Your task to perform on an android device: toggle notification dots Image 0: 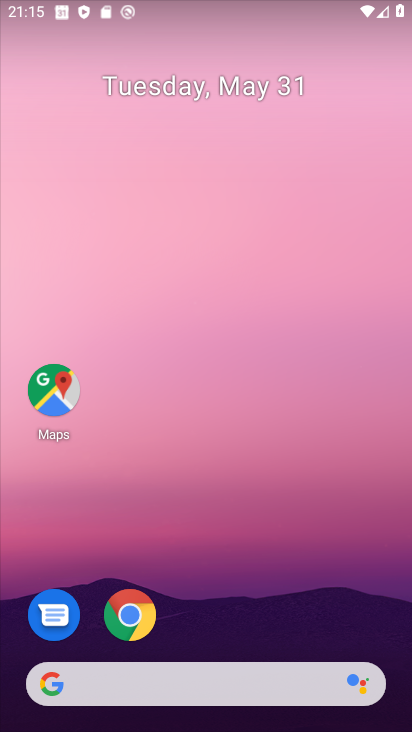
Step 0: drag from (277, 643) to (284, 139)
Your task to perform on an android device: toggle notification dots Image 1: 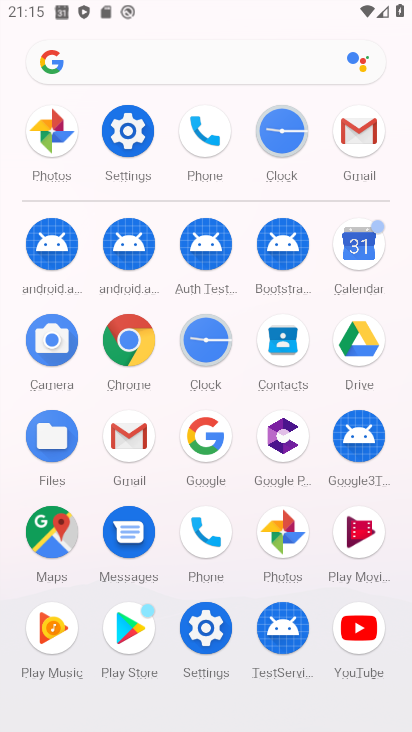
Step 1: click (205, 640)
Your task to perform on an android device: toggle notification dots Image 2: 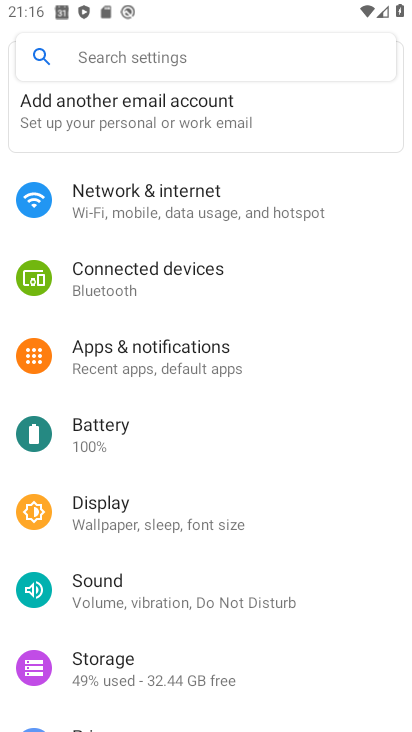
Step 2: click (170, 349)
Your task to perform on an android device: toggle notification dots Image 3: 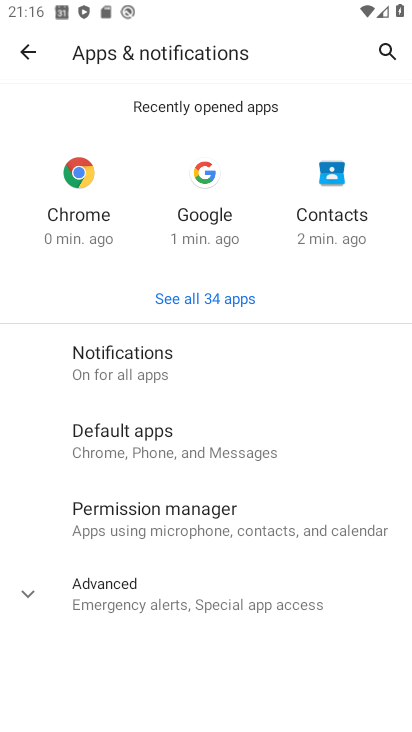
Step 3: click (29, 595)
Your task to perform on an android device: toggle notification dots Image 4: 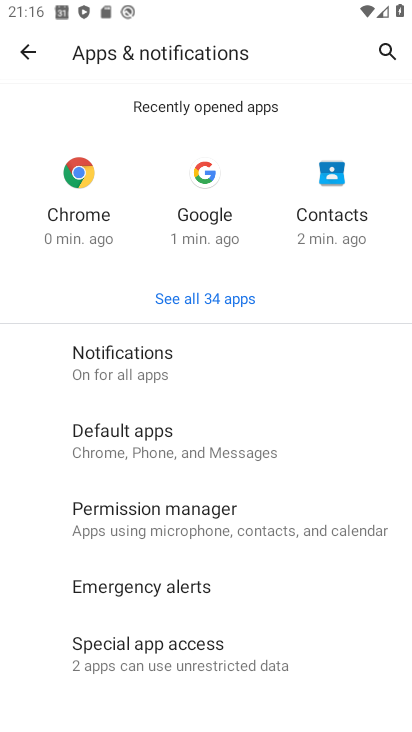
Step 4: drag from (371, 664) to (345, 303)
Your task to perform on an android device: toggle notification dots Image 5: 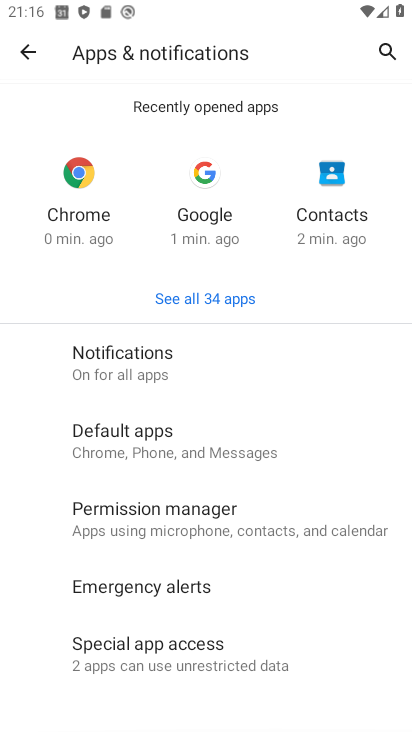
Step 5: drag from (320, 570) to (311, 290)
Your task to perform on an android device: toggle notification dots Image 6: 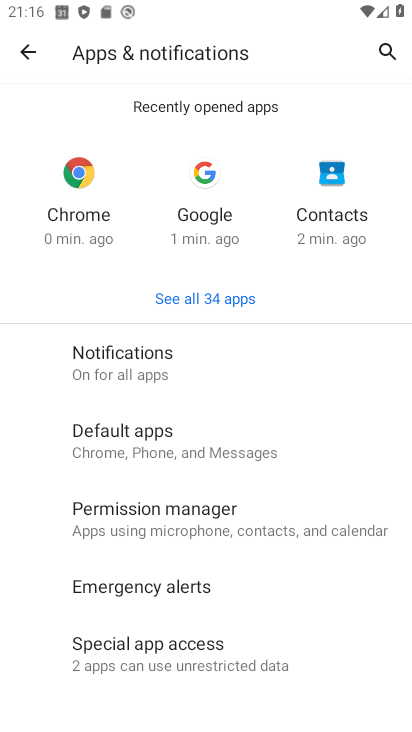
Step 6: drag from (326, 570) to (326, 266)
Your task to perform on an android device: toggle notification dots Image 7: 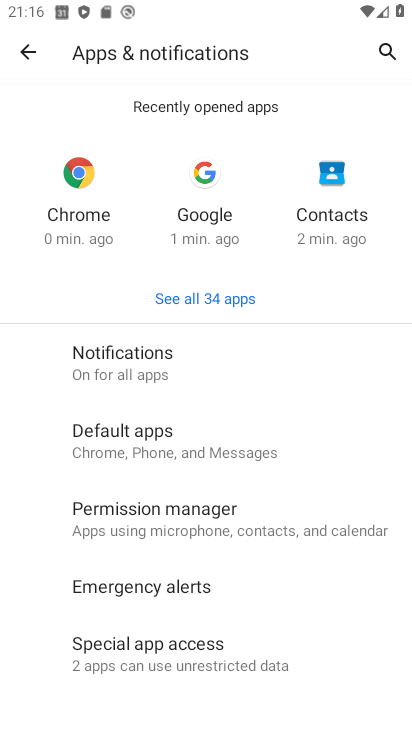
Step 7: click (120, 367)
Your task to perform on an android device: toggle notification dots Image 8: 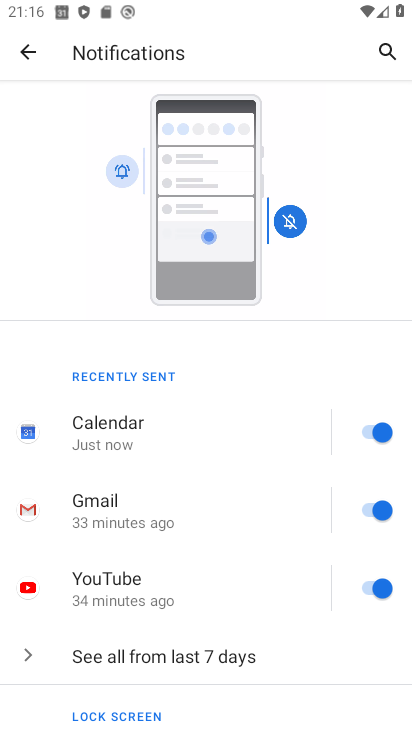
Step 8: drag from (226, 666) to (193, 257)
Your task to perform on an android device: toggle notification dots Image 9: 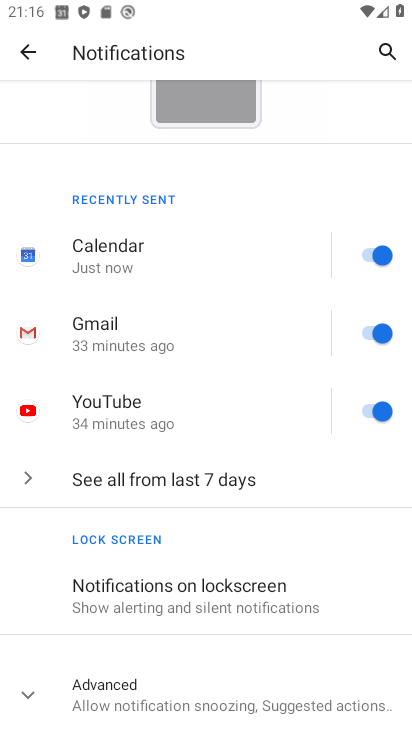
Step 9: click (37, 696)
Your task to perform on an android device: toggle notification dots Image 10: 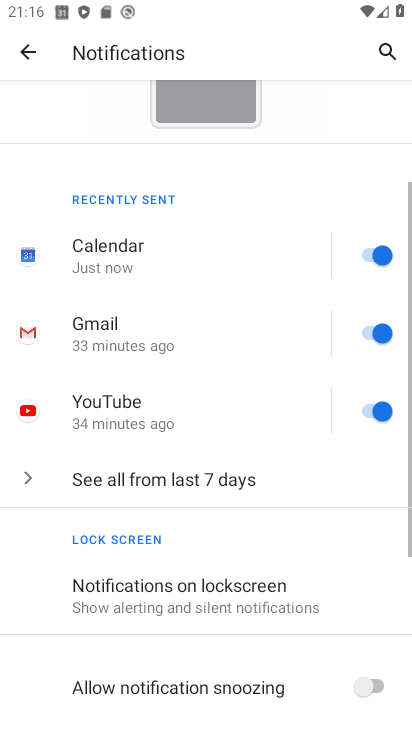
Step 10: drag from (333, 629) to (344, 274)
Your task to perform on an android device: toggle notification dots Image 11: 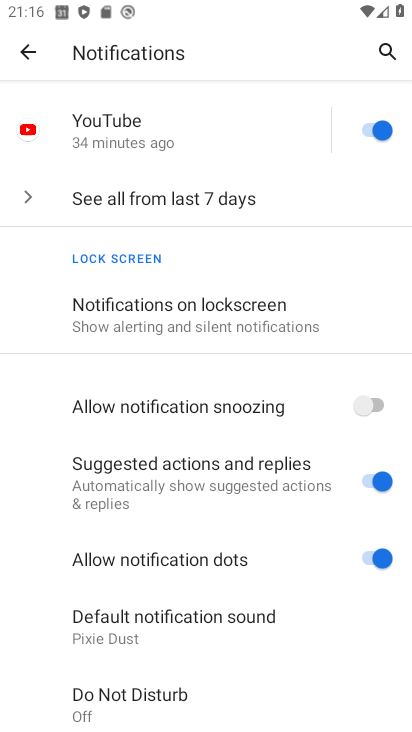
Step 11: click (390, 554)
Your task to perform on an android device: toggle notification dots Image 12: 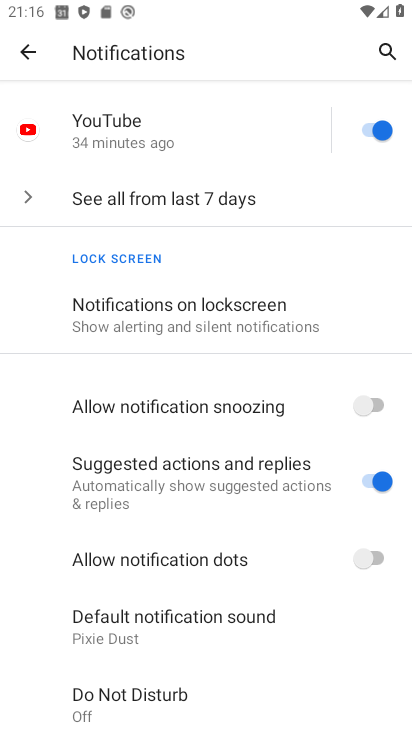
Step 12: task complete